Your task to perform on an android device: Open Yahoo.com Image 0: 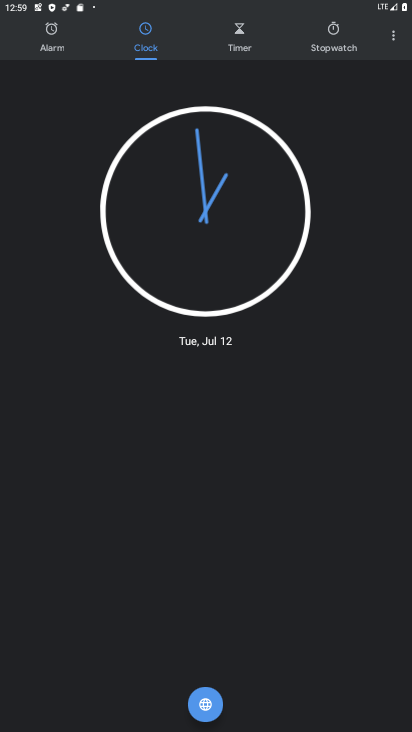
Step 0: press home button
Your task to perform on an android device: Open Yahoo.com Image 1: 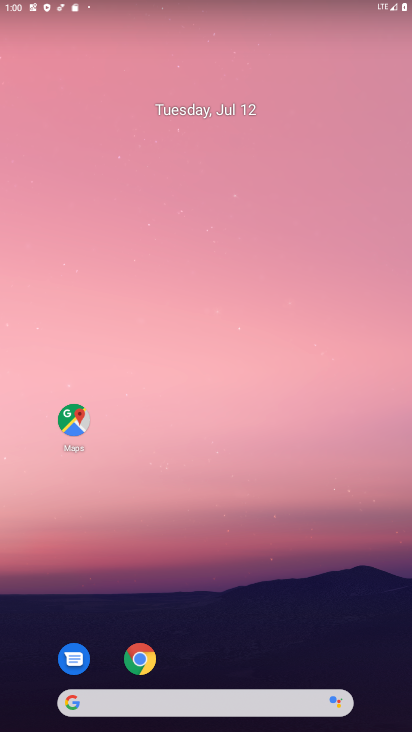
Step 1: click (145, 663)
Your task to perform on an android device: Open Yahoo.com Image 2: 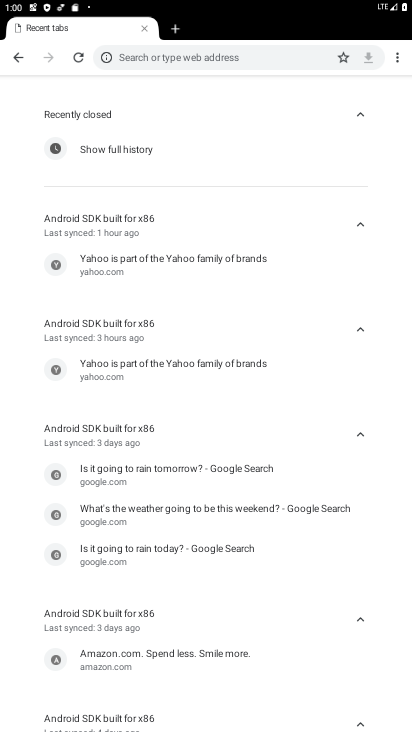
Step 2: click (396, 59)
Your task to perform on an android device: Open Yahoo.com Image 3: 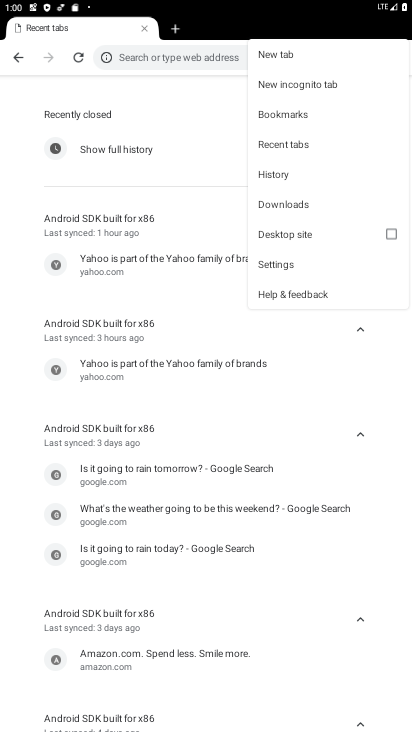
Step 3: click (282, 53)
Your task to perform on an android device: Open Yahoo.com Image 4: 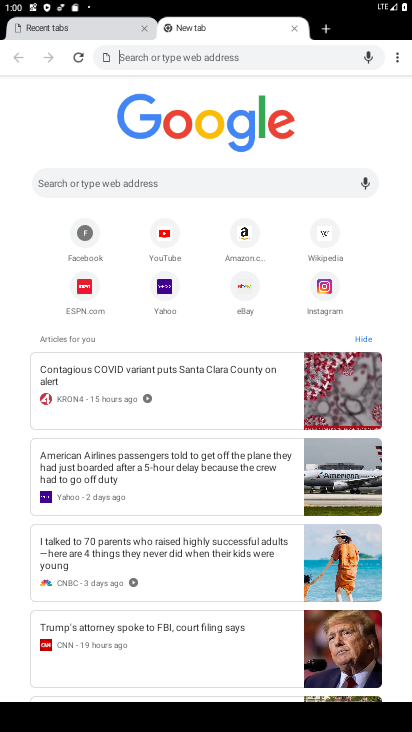
Step 4: click (161, 282)
Your task to perform on an android device: Open Yahoo.com Image 5: 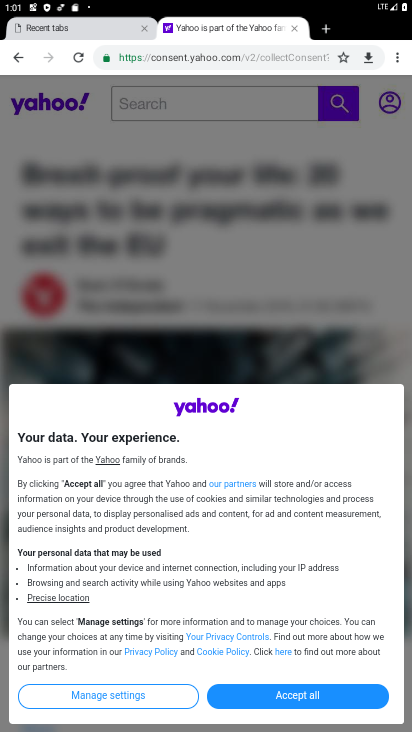
Step 5: task complete